Your task to perform on an android device: change your default location settings in chrome Image 0: 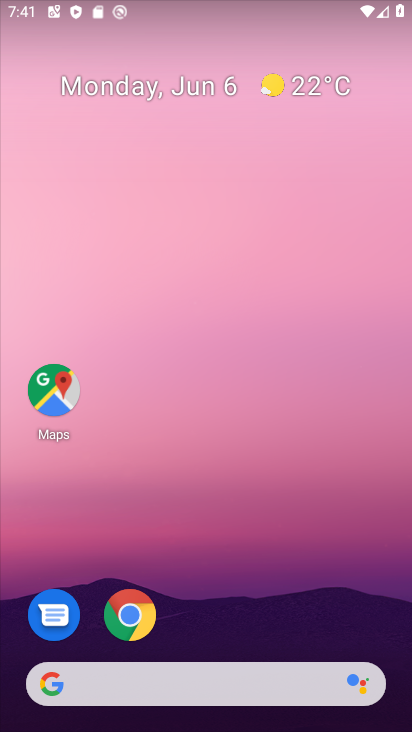
Step 0: click (134, 610)
Your task to perform on an android device: change your default location settings in chrome Image 1: 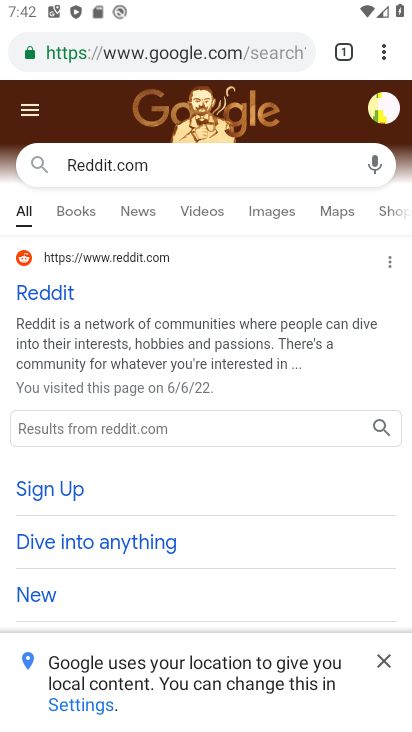
Step 1: click (381, 46)
Your task to perform on an android device: change your default location settings in chrome Image 2: 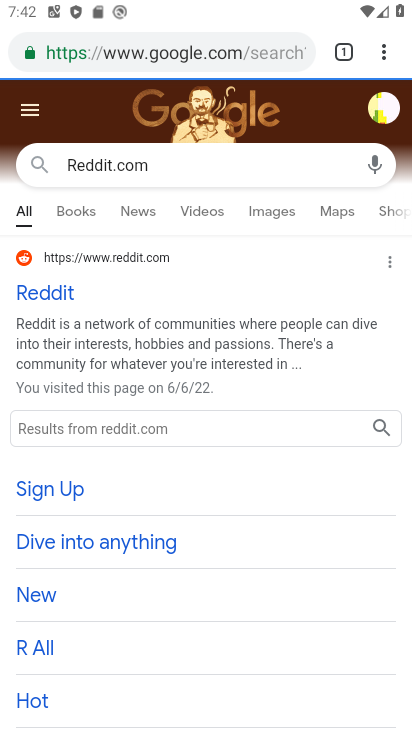
Step 2: click (381, 46)
Your task to perform on an android device: change your default location settings in chrome Image 3: 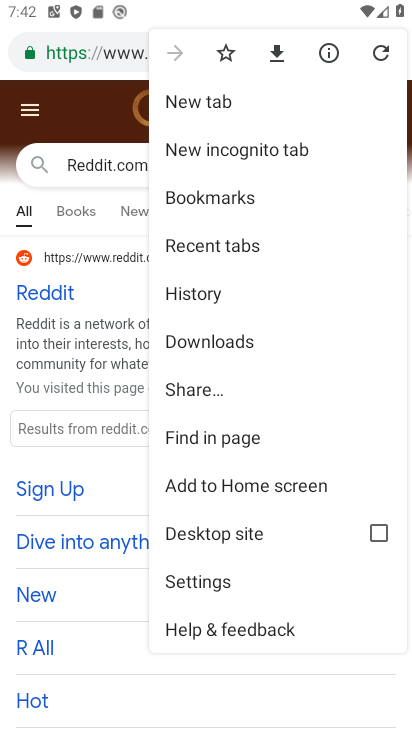
Step 3: click (213, 586)
Your task to perform on an android device: change your default location settings in chrome Image 4: 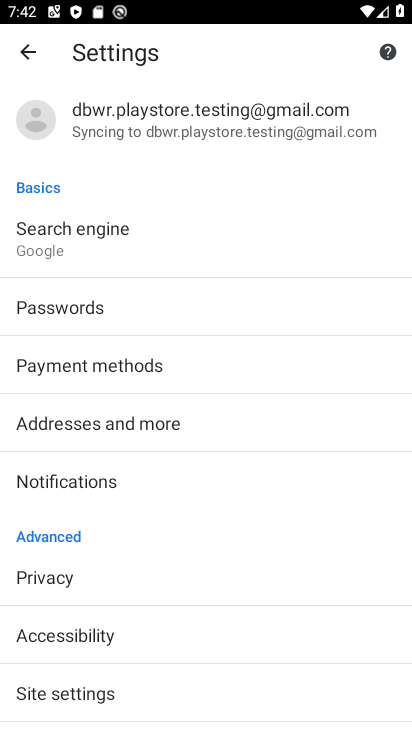
Step 4: click (165, 690)
Your task to perform on an android device: change your default location settings in chrome Image 5: 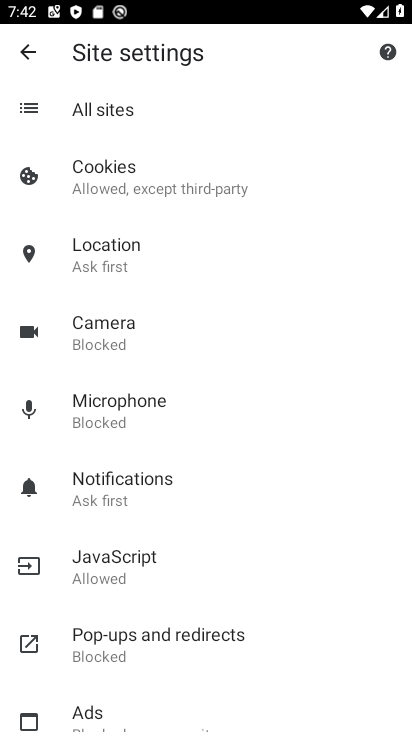
Step 5: click (113, 246)
Your task to perform on an android device: change your default location settings in chrome Image 6: 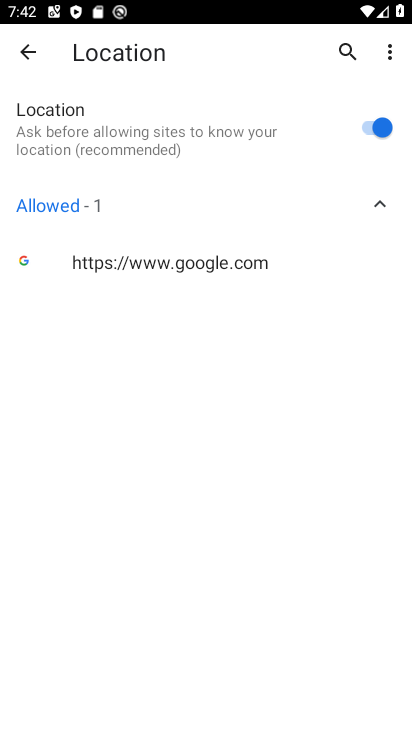
Step 6: click (363, 122)
Your task to perform on an android device: change your default location settings in chrome Image 7: 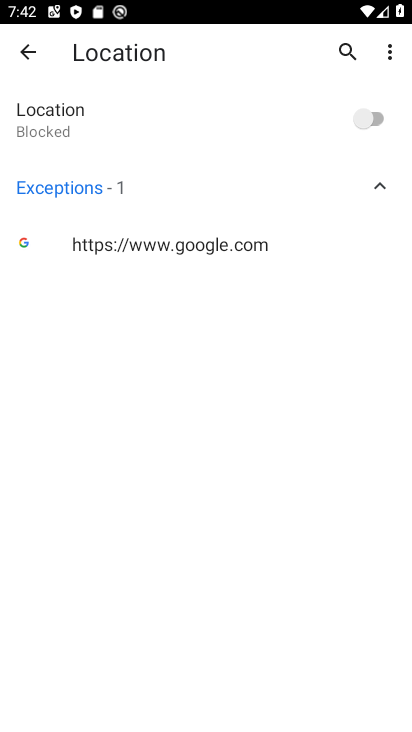
Step 7: task complete